Your task to perform on an android device: turn off javascript in the chrome app Image 0: 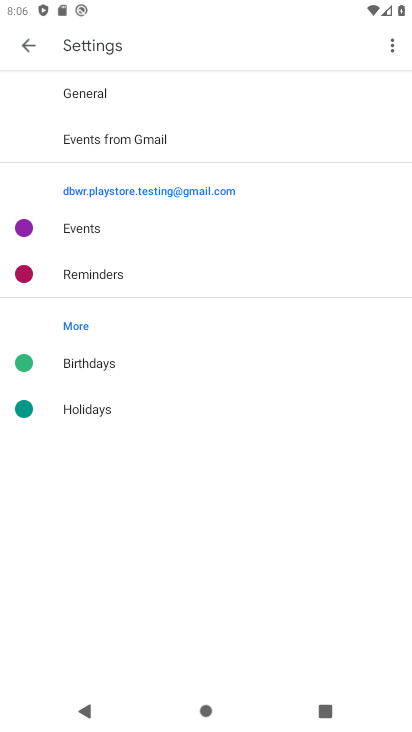
Step 0: press home button
Your task to perform on an android device: turn off javascript in the chrome app Image 1: 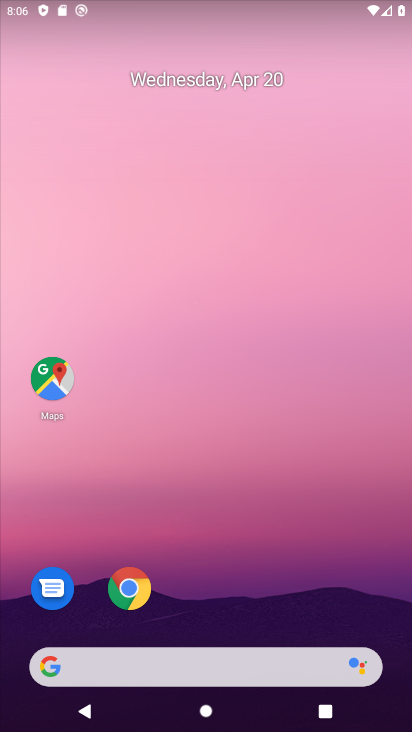
Step 1: click (117, 594)
Your task to perform on an android device: turn off javascript in the chrome app Image 2: 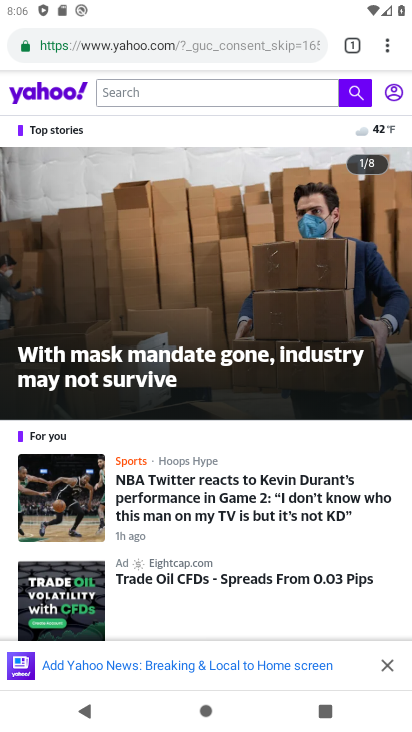
Step 2: click (391, 51)
Your task to perform on an android device: turn off javascript in the chrome app Image 3: 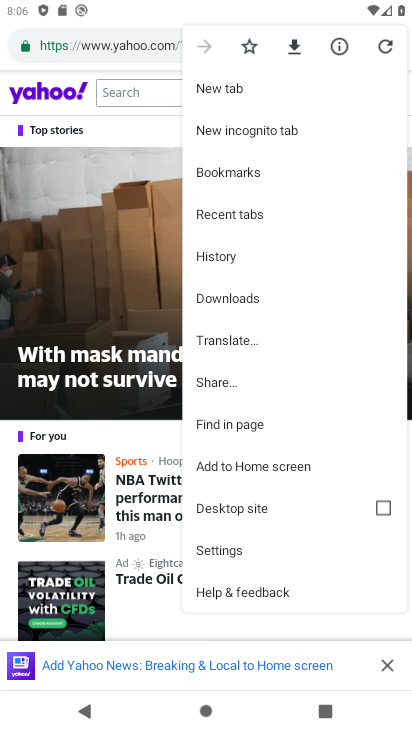
Step 3: click (236, 547)
Your task to perform on an android device: turn off javascript in the chrome app Image 4: 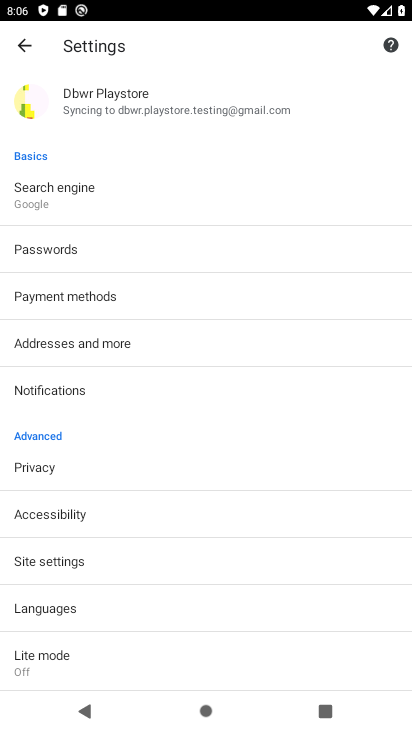
Step 4: click (106, 567)
Your task to perform on an android device: turn off javascript in the chrome app Image 5: 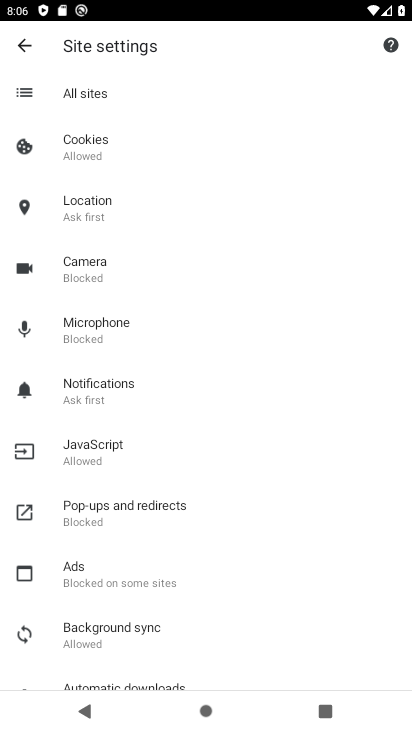
Step 5: click (124, 459)
Your task to perform on an android device: turn off javascript in the chrome app Image 6: 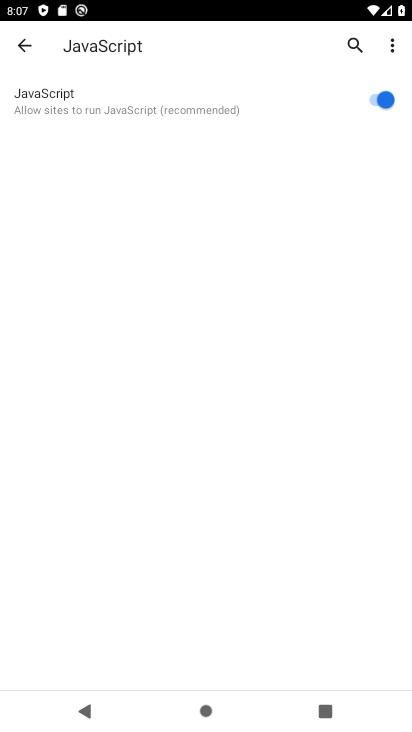
Step 6: click (371, 103)
Your task to perform on an android device: turn off javascript in the chrome app Image 7: 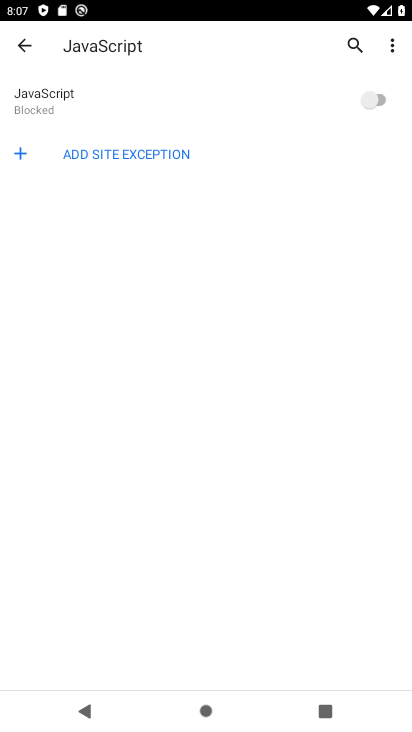
Step 7: task complete